Your task to perform on an android device: Open notification settings Image 0: 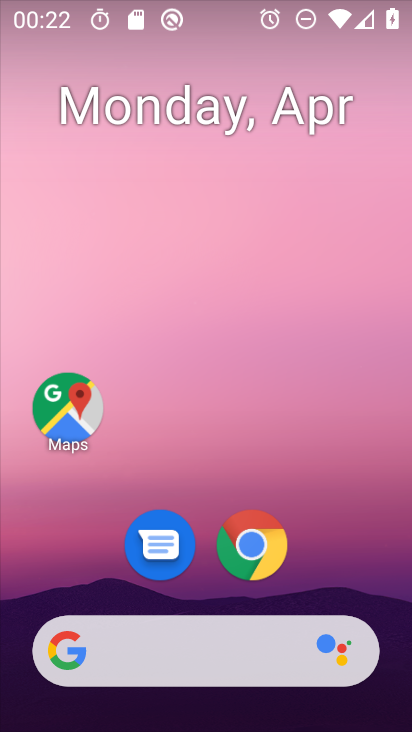
Step 0: drag from (320, 548) to (335, 212)
Your task to perform on an android device: Open notification settings Image 1: 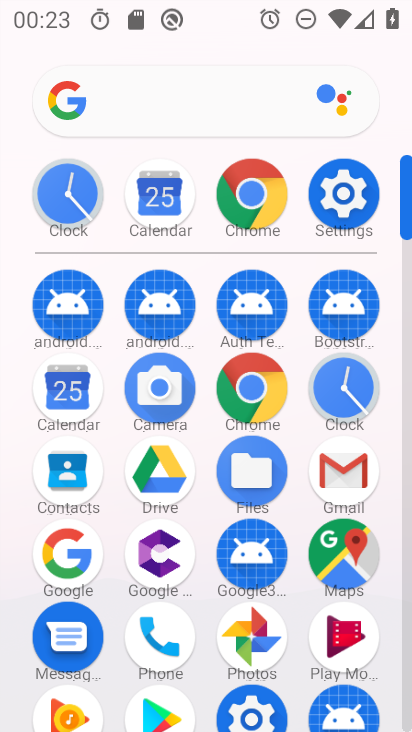
Step 1: click (330, 188)
Your task to perform on an android device: Open notification settings Image 2: 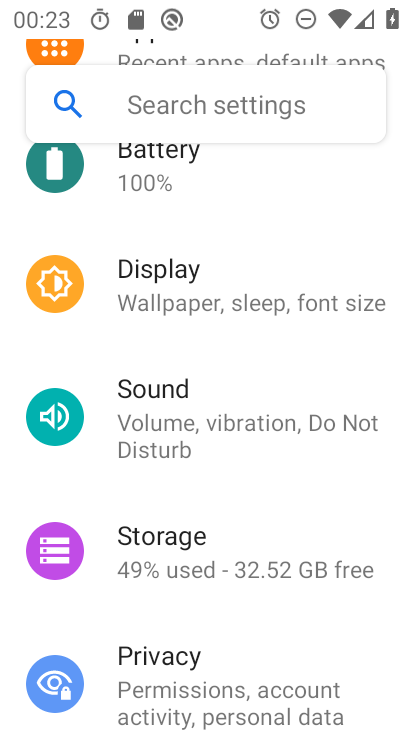
Step 2: drag from (246, 184) to (231, 580)
Your task to perform on an android device: Open notification settings Image 3: 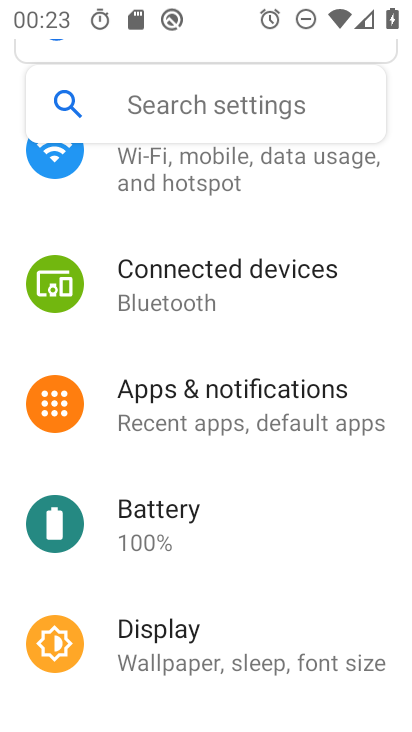
Step 3: click (207, 376)
Your task to perform on an android device: Open notification settings Image 4: 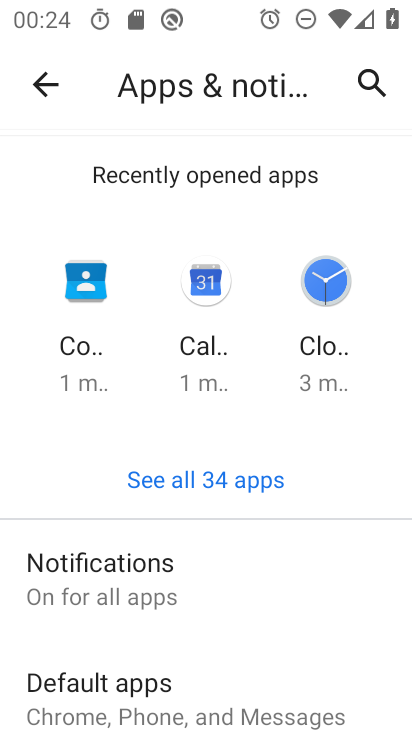
Step 4: click (150, 574)
Your task to perform on an android device: Open notification settings Image 5: 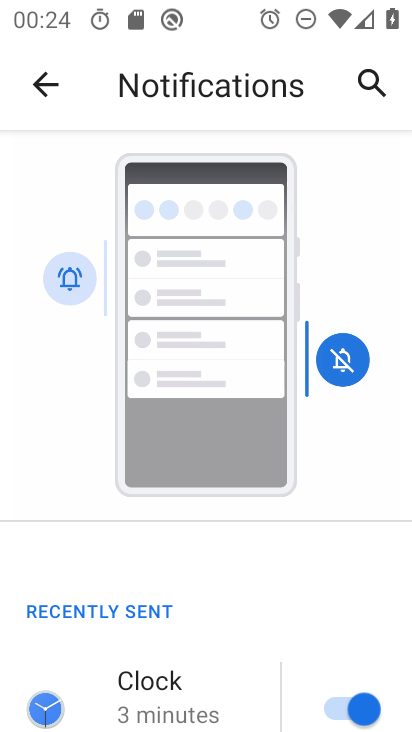
Step 5: task complete